Your task to perform on an android device: open a bookmark in the chrome app Image 0: 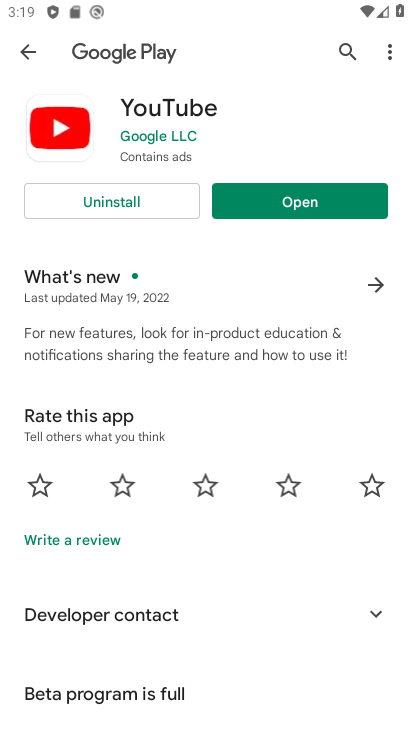
Step 0: press home button
Your task to perform on an android device: open a bookmark in the chrome app Image 1: 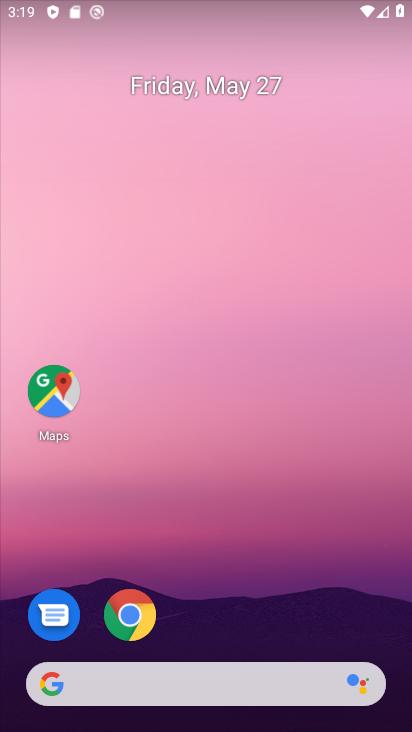
Step 1: click (129, 632)
Your task to perform on an android device: open a bookmark in the chrome app Image 2: 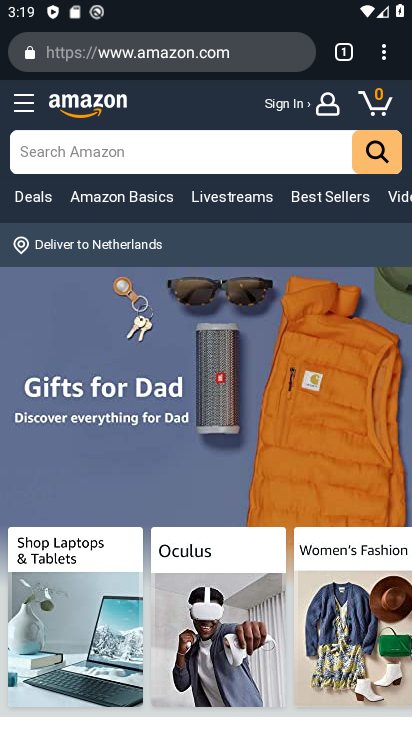
Step 2: click (379, 55)
Your task to perform on an android device: open a bookmark in the chrome app Image 3: 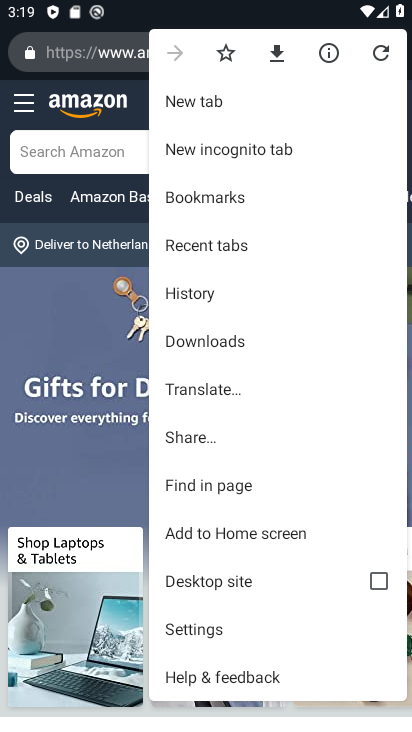
Step 3: click (218, 195)
Your task to perform on an android device: open a bookmark in the chrome app Image 4: 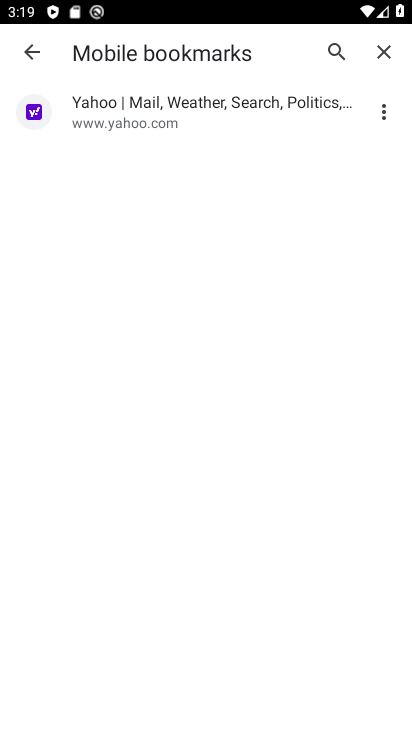
Step 4: click (146, 109)
Your task to perform on an android device: open a bookmark in the chrome app Image 5: 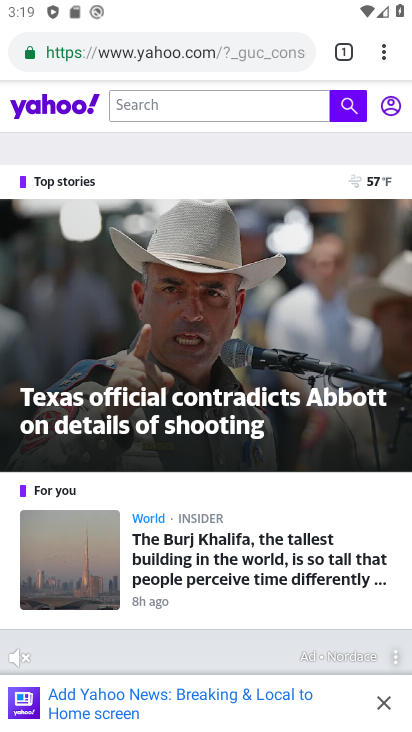
Step 5: task complete